Your task to perform on an android device: Go to wifi settings Image 0: 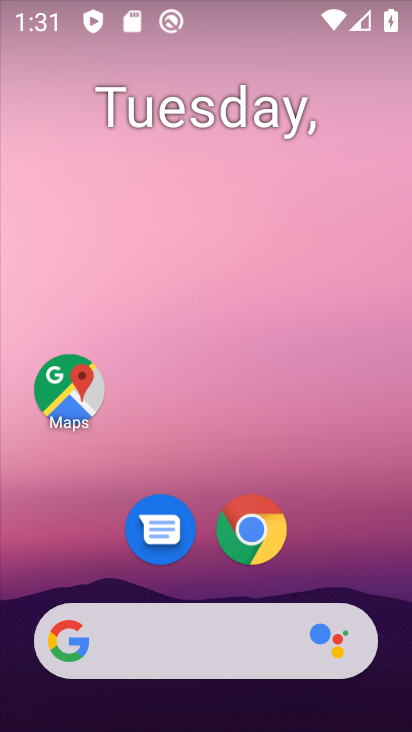
Step 0: drag from (394, 611) to (300, 53)
Your task to perform on an android device: Go to wifi settings Image 1: 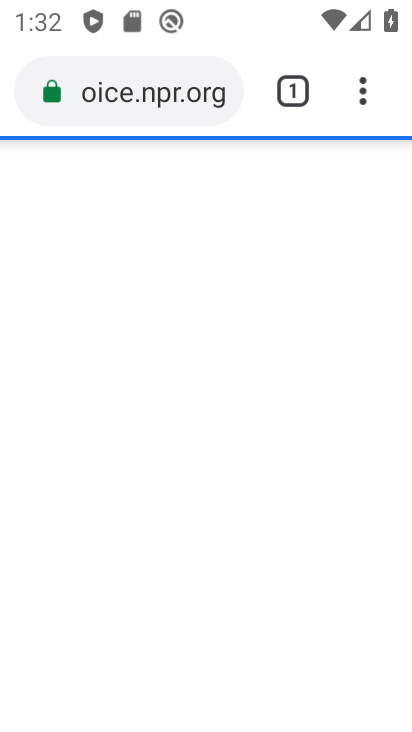
Step 1: press home button
Your task to perform on an android device: Go to wifi settings Image 2: 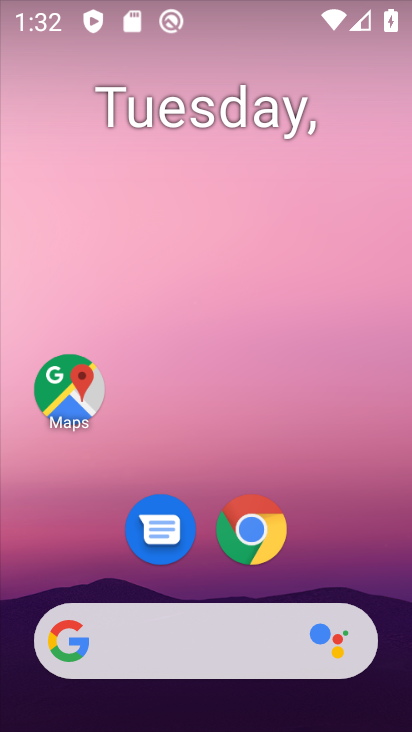
Step 2: drag from (391, 625) to (272, 51)
Your task to perform on an android device: Go to wifi settings Image 3: 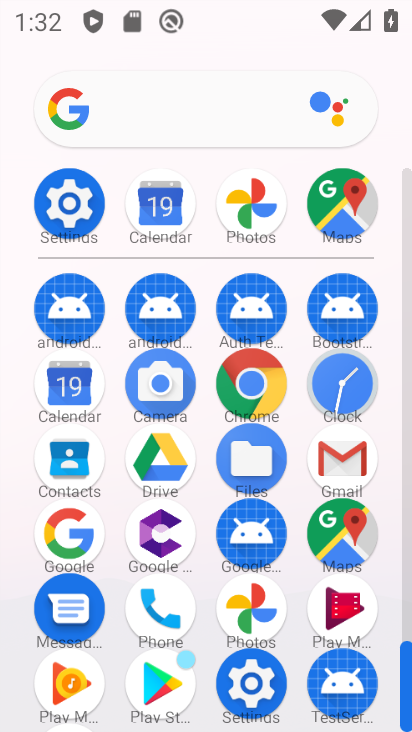
Step 3: click (234, 671)
Your task to perform on an android device: Go to wifi settings Image 4: 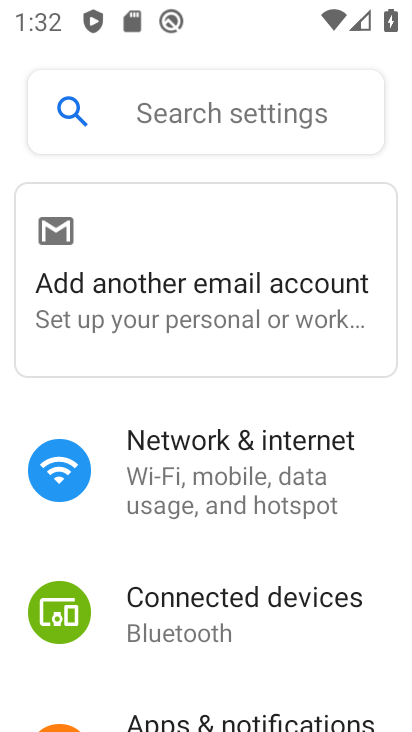
Step 4: click (233, 495)
Your task to perform on an android device: Go to wifi settings Image 5: 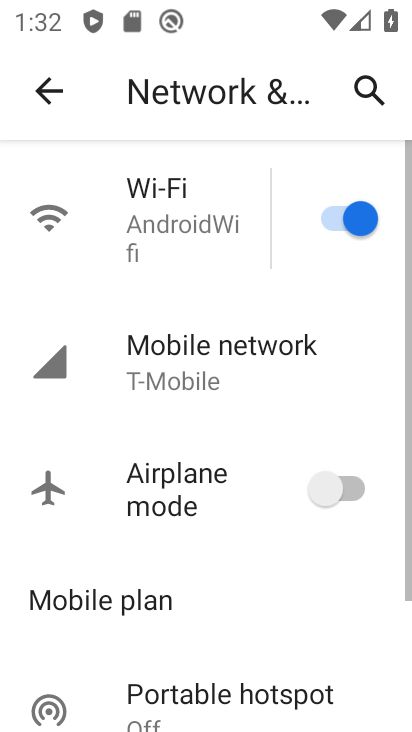
Step 5: click (175, 234)
Your task to perform on an android device: Go to wifi settings Image 6: 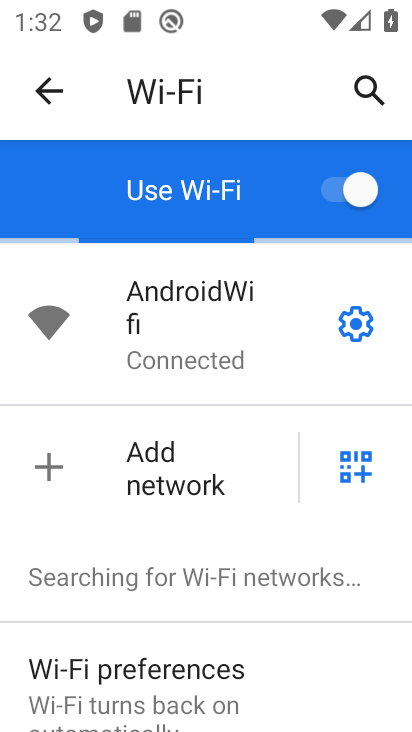
Step 6: task complete